Your task to perform on an android device: Open Maps and search for coffee Image 0: 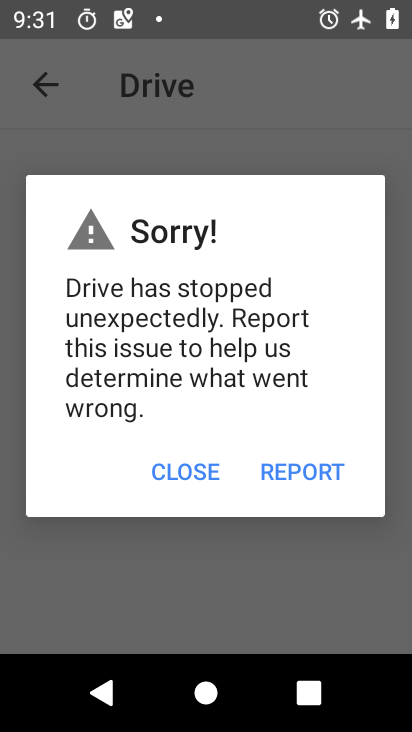
Step 0: press home button
Your task to perform on an android device: Open Maps and search for coffee Image 1: 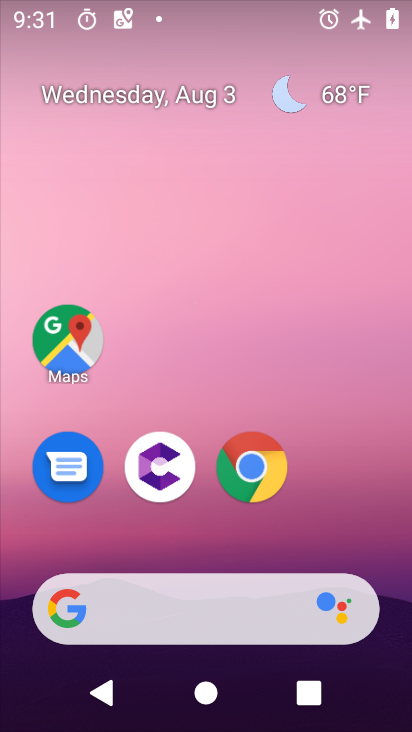
Step 1: drag from (311, 345) to (298, 28)
Your task to perform on an android device: Open Maps and search for coffee Image 2: 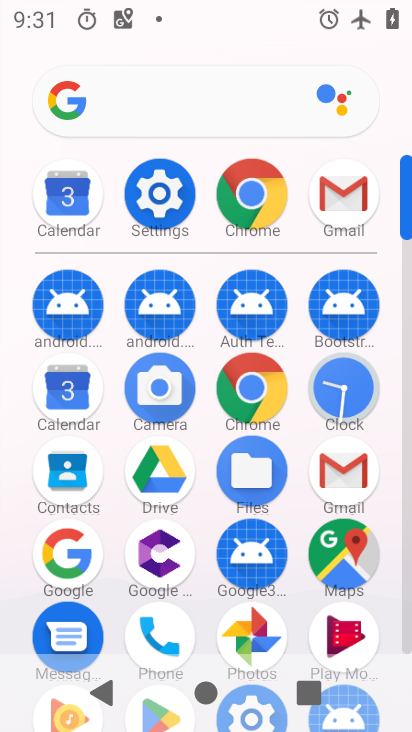
Step 2: click (349, 568)
Your task to perform on an android device: Open Maps and search for coffee Image 3: 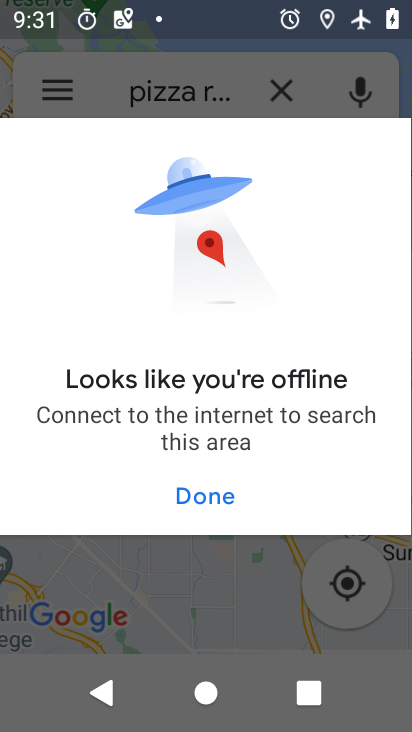
Step 3: click (217, 480)
Your task to perform on an android device: Open Maps and search for coffee Image 4: 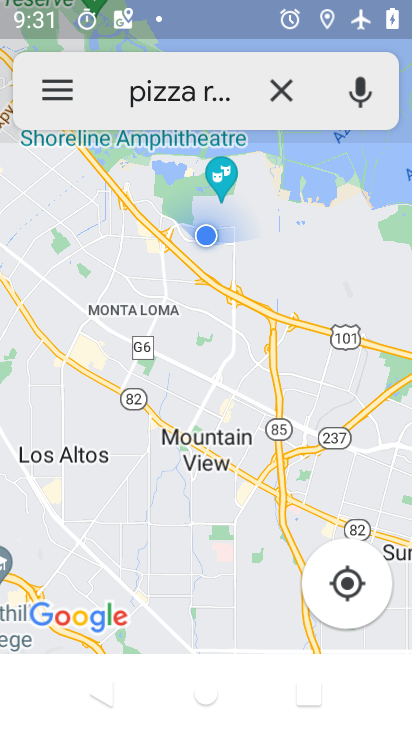
Step 4: click (184, 99)
Your task to perform on an android device: Open Maps and search for coffee Image 5: 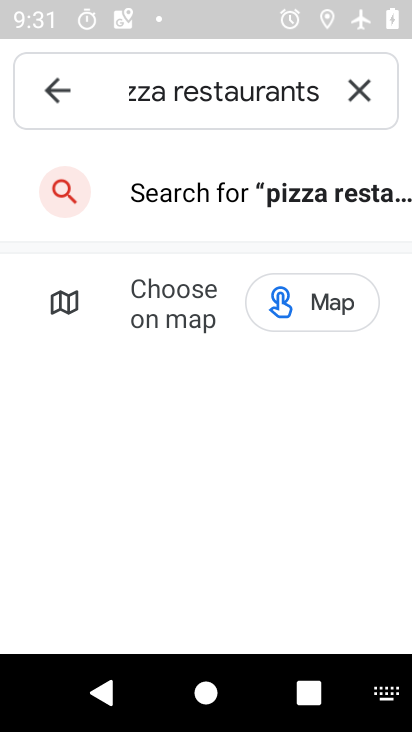
Step 5: click (360, 87)
Your task to perform on an android device: Open Maps and search for coffee Image 6: 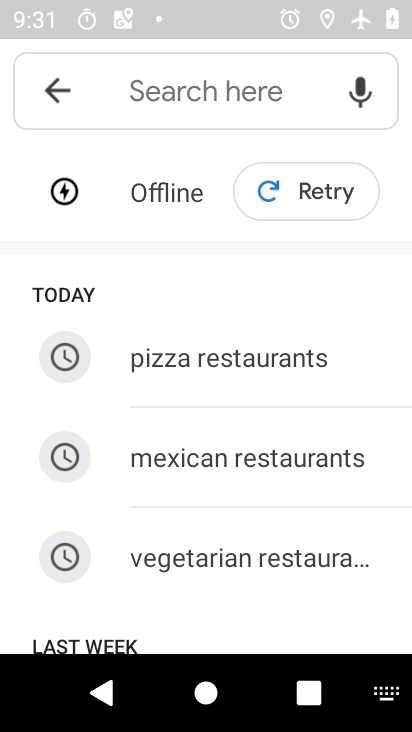
Step 6: type "coffee"
Your task to perform on an android device: Open Maps and search for coffee Image 7: 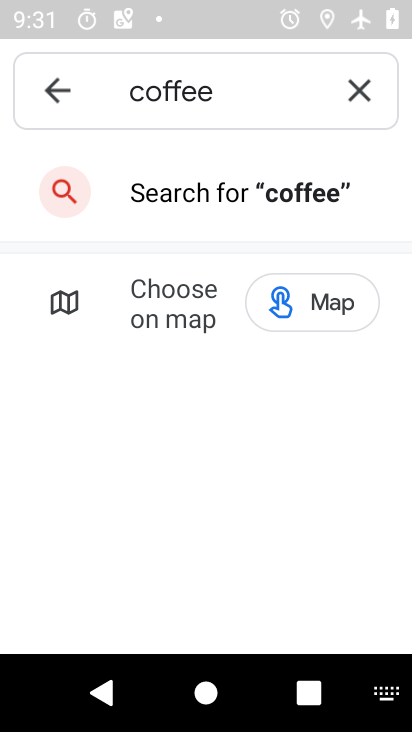
Step 7: press enter
Your task to perform on an android device: Open Maps and search for coffee Image 8: 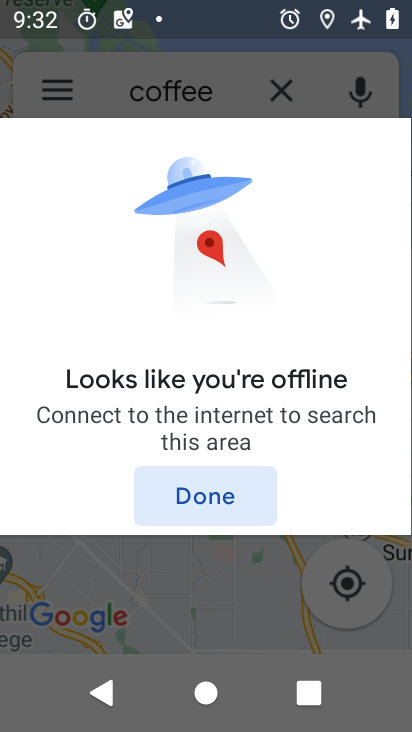
Step 8: task complete